Your task to perform on an android device: Open privacy settings Image 0: 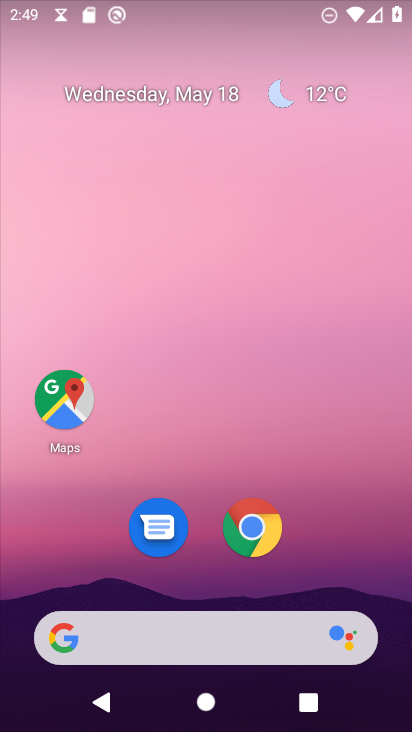
Step 0: drag from (320, 551) to (195, 9)
Your task to perform on an android device: Open privacy settings Image 1: 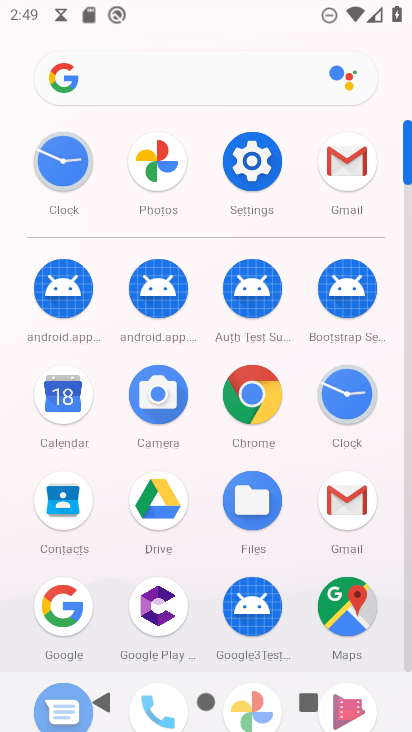
Step 1: click (254, 156)
Your task to perform on an android device: Open privacy settings Image 2: 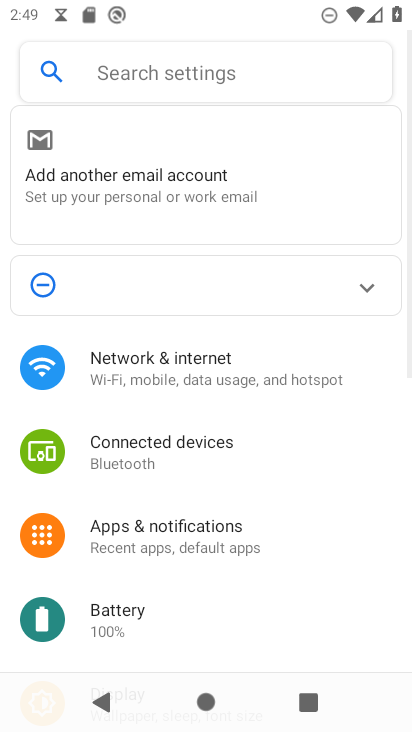
Step 2: drag from (244, 603) to (210, 246)
Your task to perform on an android device: Open privacy settings Image 3: 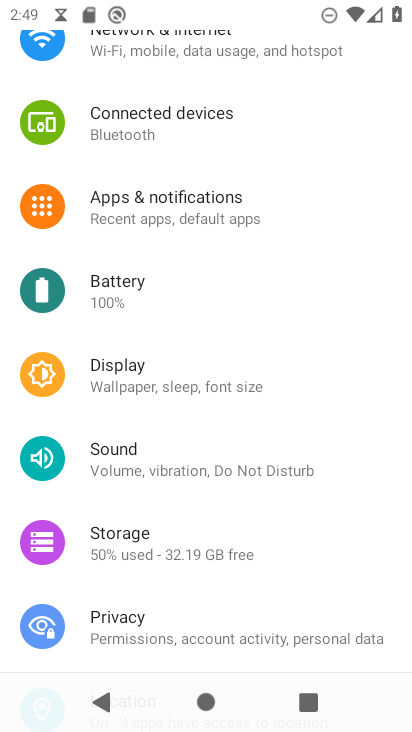
Step 3: click (184, 625)
Your task to perform on an android device: Open privacy settings Image 4: 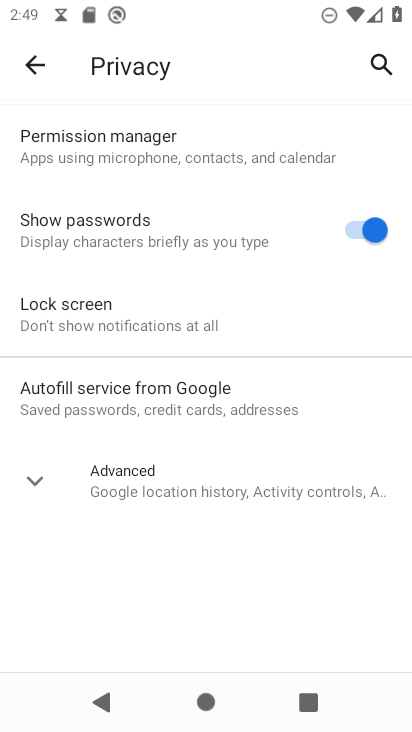
Step 4: task complete